Your task to perform on an android device: open app "Life360: Find Family & Friends" (install if not already installed) Image 0: 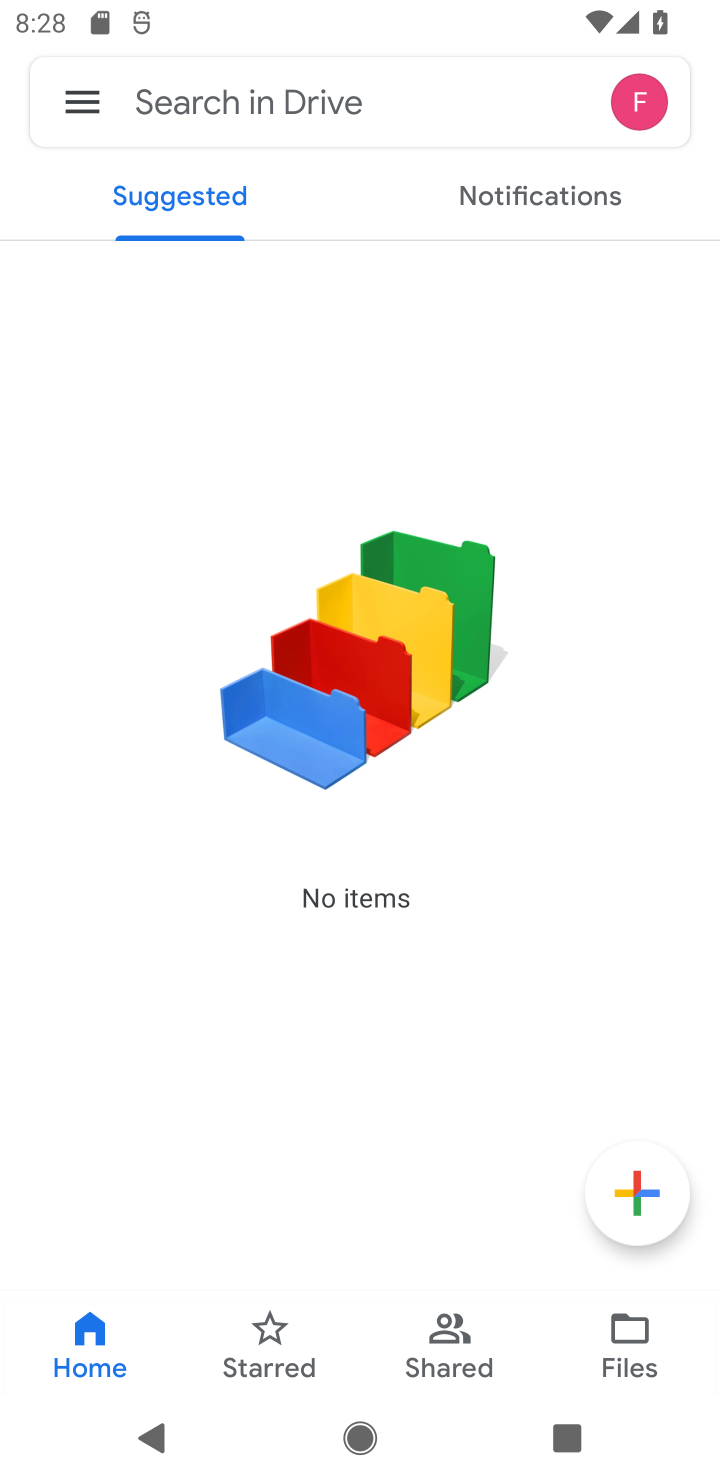
Step 0: press home button
Your task to perform on an android device: open app "Life360: Find Family & Friends" (install if not already installed) Image 1: 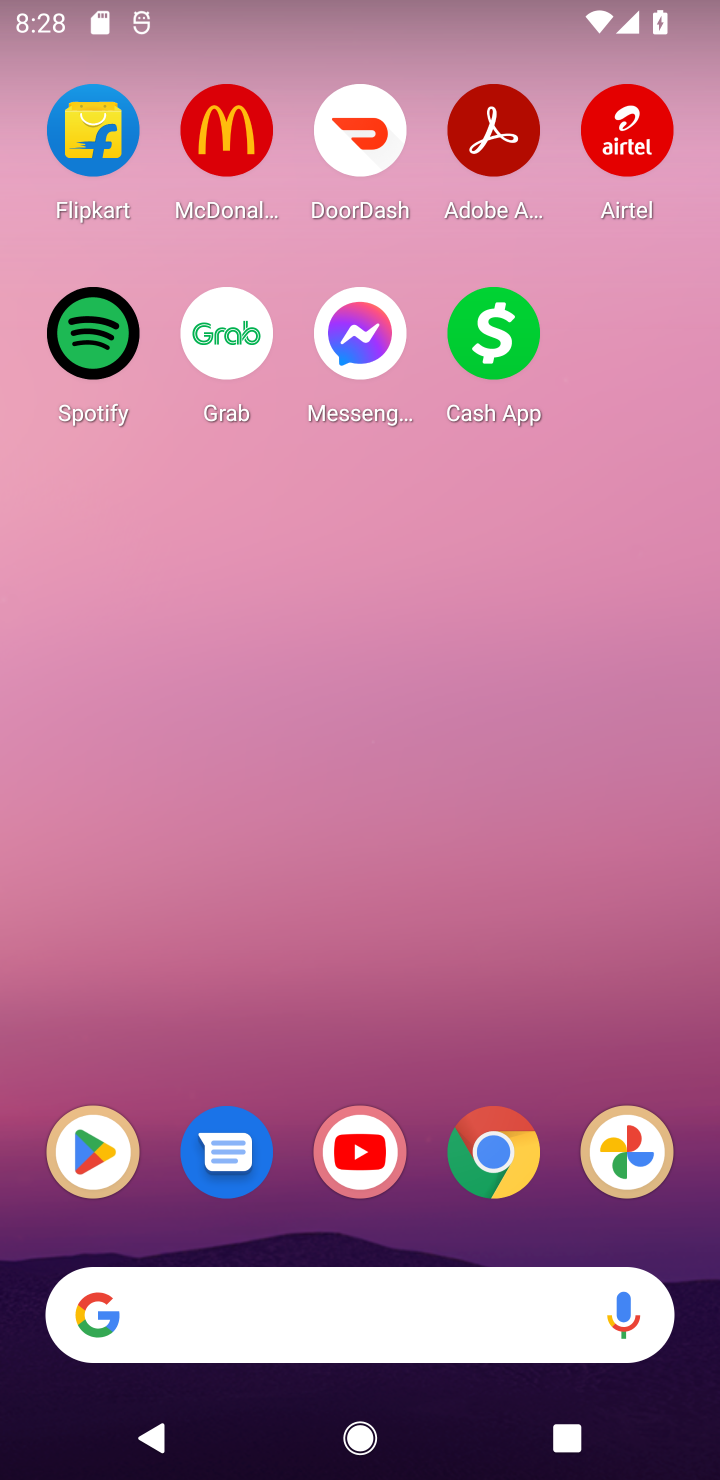
Step 1: click (112, 1138)
Your task to perform on an android device: open app "Life360: Find Family & Friends" (install if not already installed) Image 2: 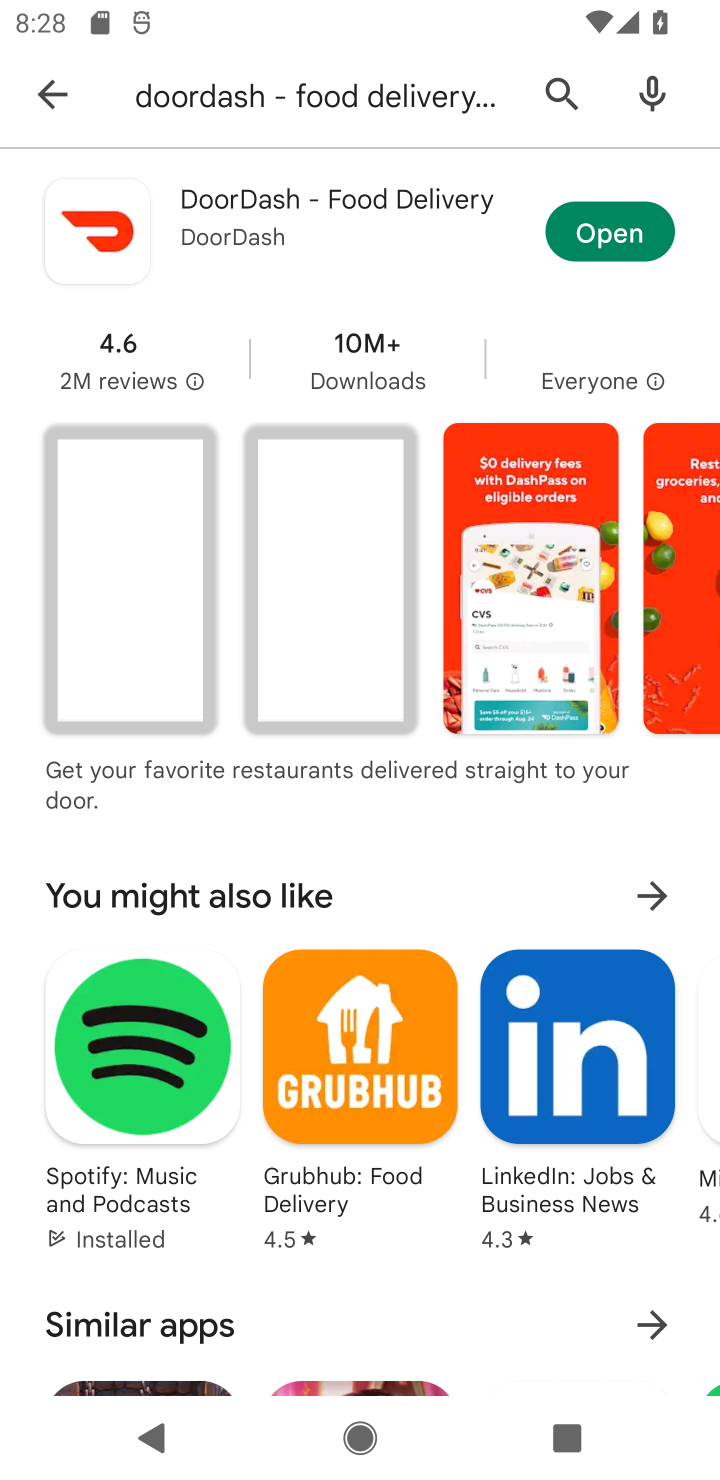
Step 2: click (57, 95)
Your task to perform on an android device: open app "Life360: Find Family & Friends" (install if not already installed) Image 3: 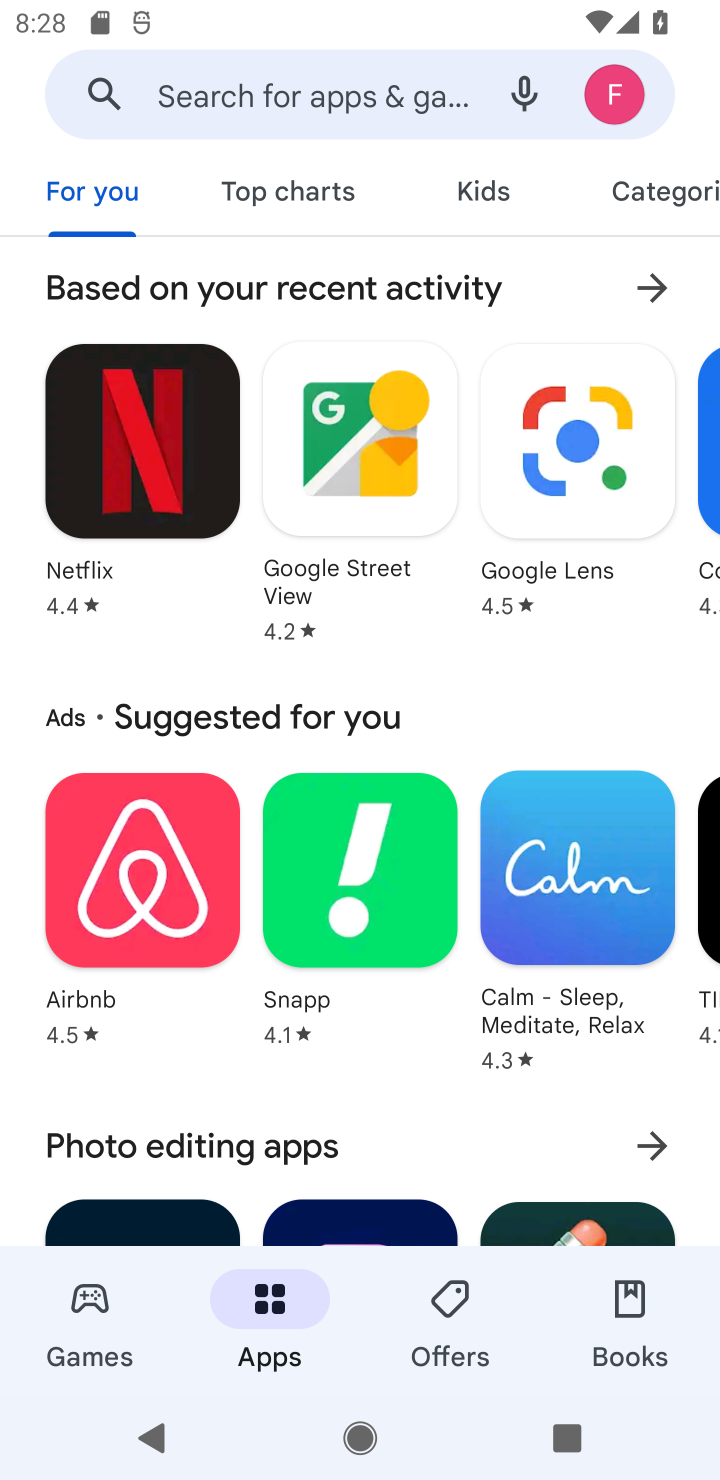
Step 3: click (296, 87)
Your task to perform on an android device: open app "Life360: Find Family & Friends" (install if not already installed) Image 4: 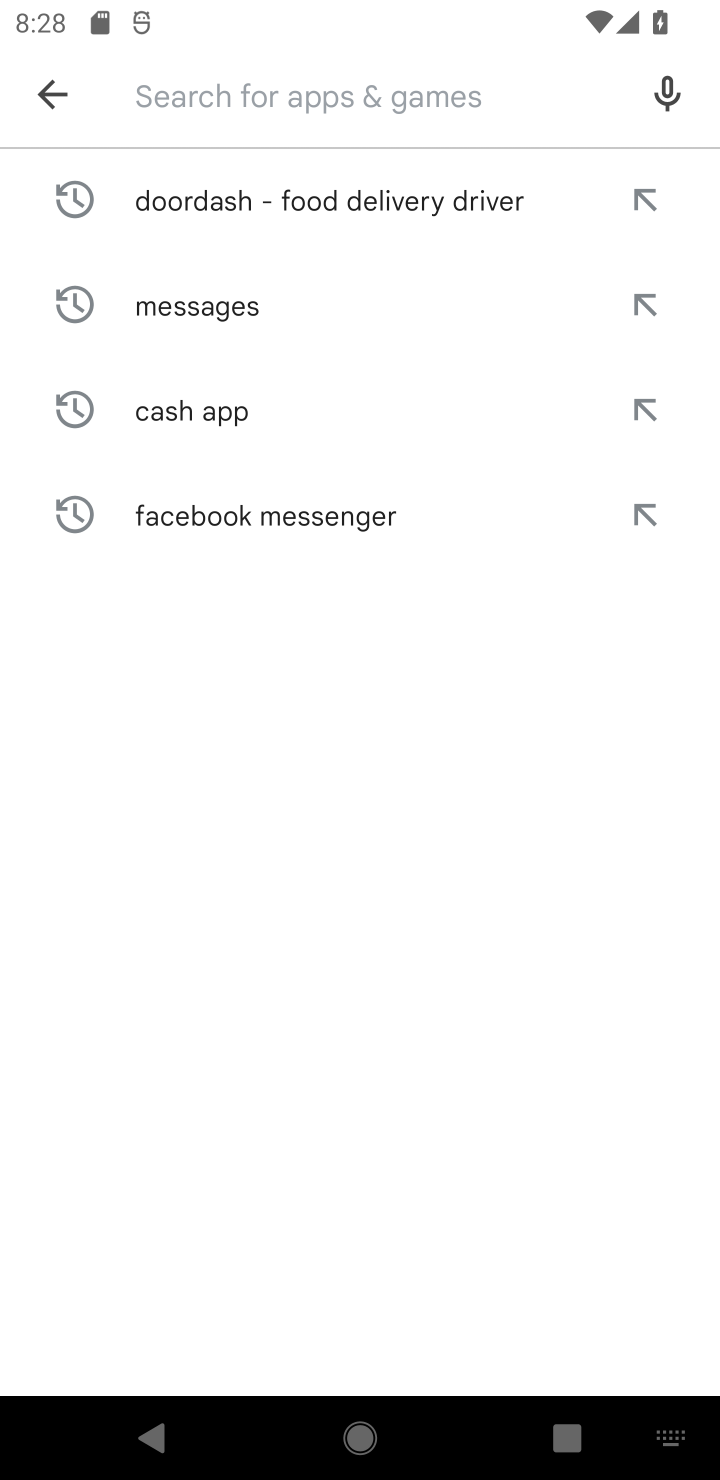
Step 4: type "Life360: Find Family & Friends"
Your task to perform on an android device: open app "Life360: Find Family & Friends" (install if not already installed) Image 5: 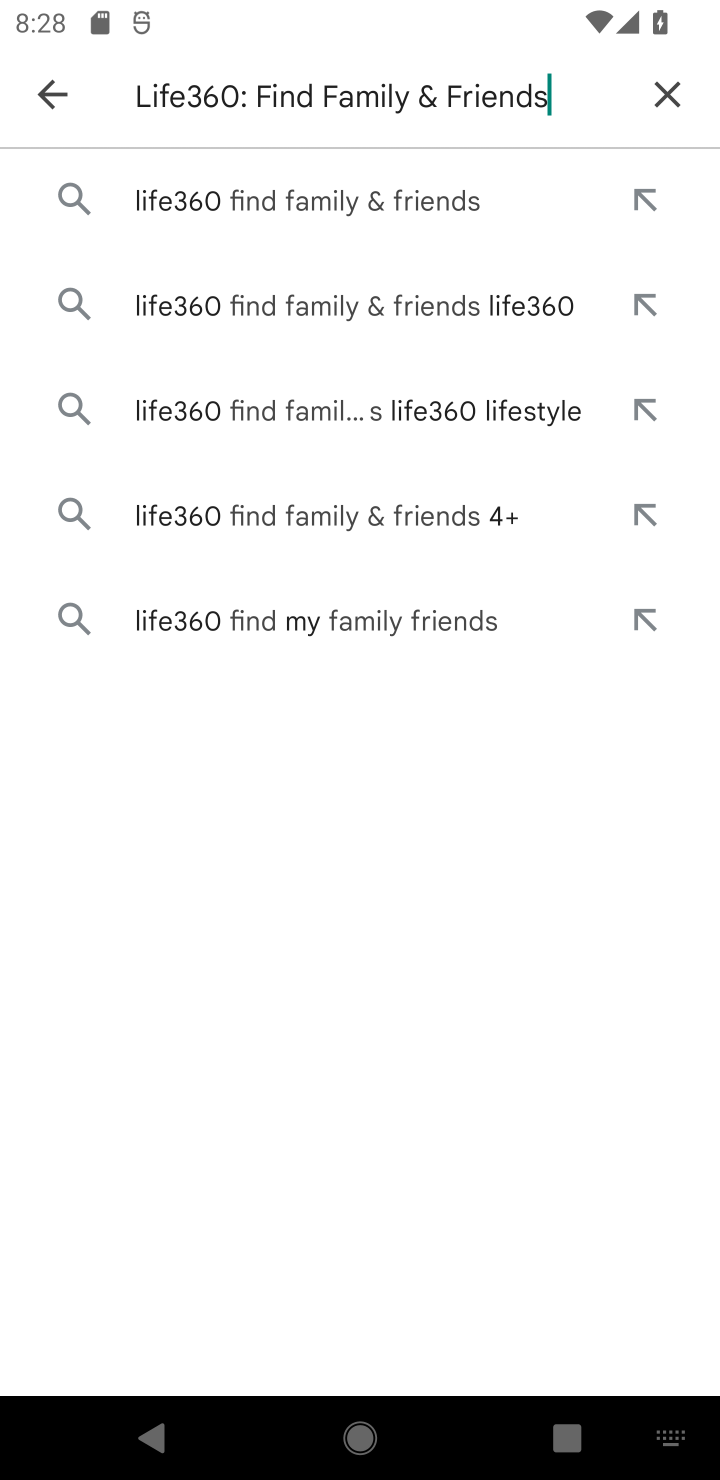
Step 5: click (462, 208)
Your task to perform on an android device: open app "Life360: Find Family & Friends" (install if not already installed) Image 6: 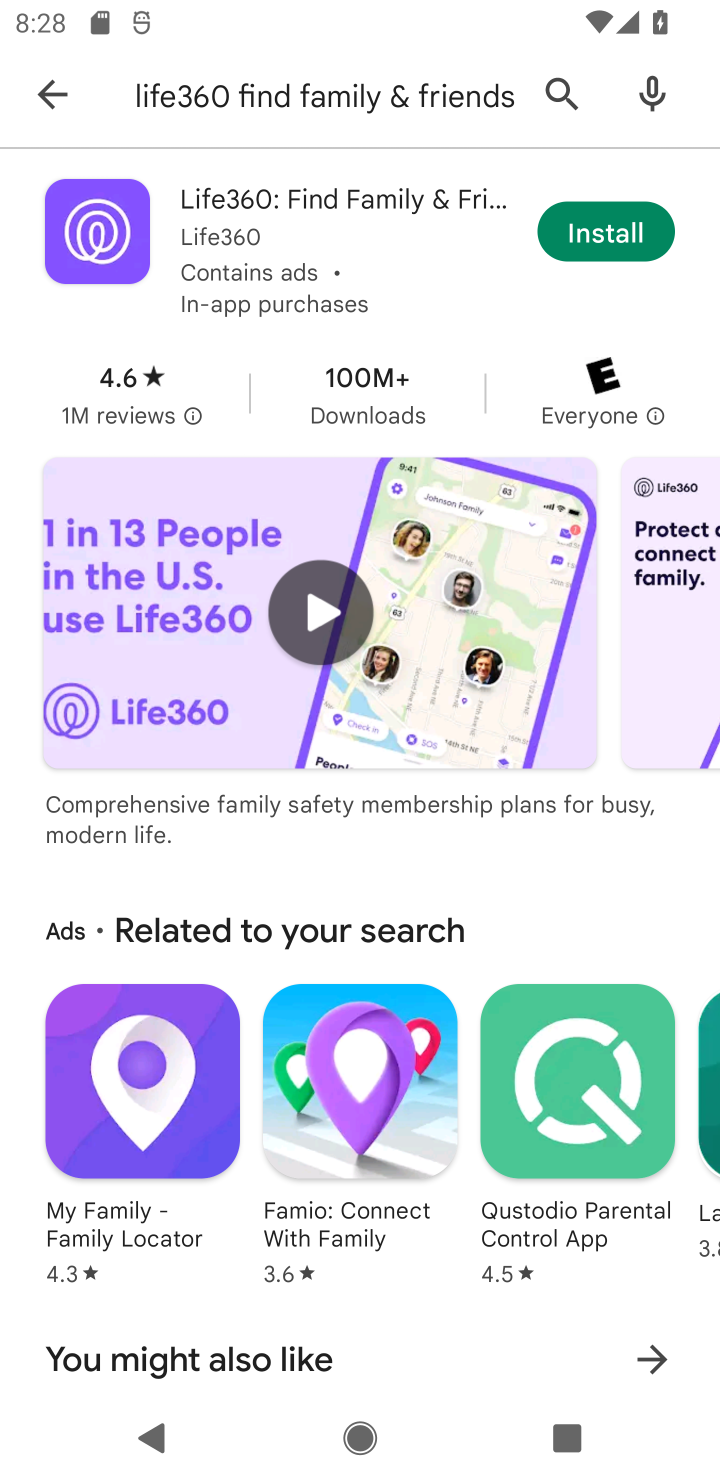
Step 6: click (591, 230)
Your task to perform on an android device: open app "Life360: Find Family & Friends" (install if not already installed) Image 7: 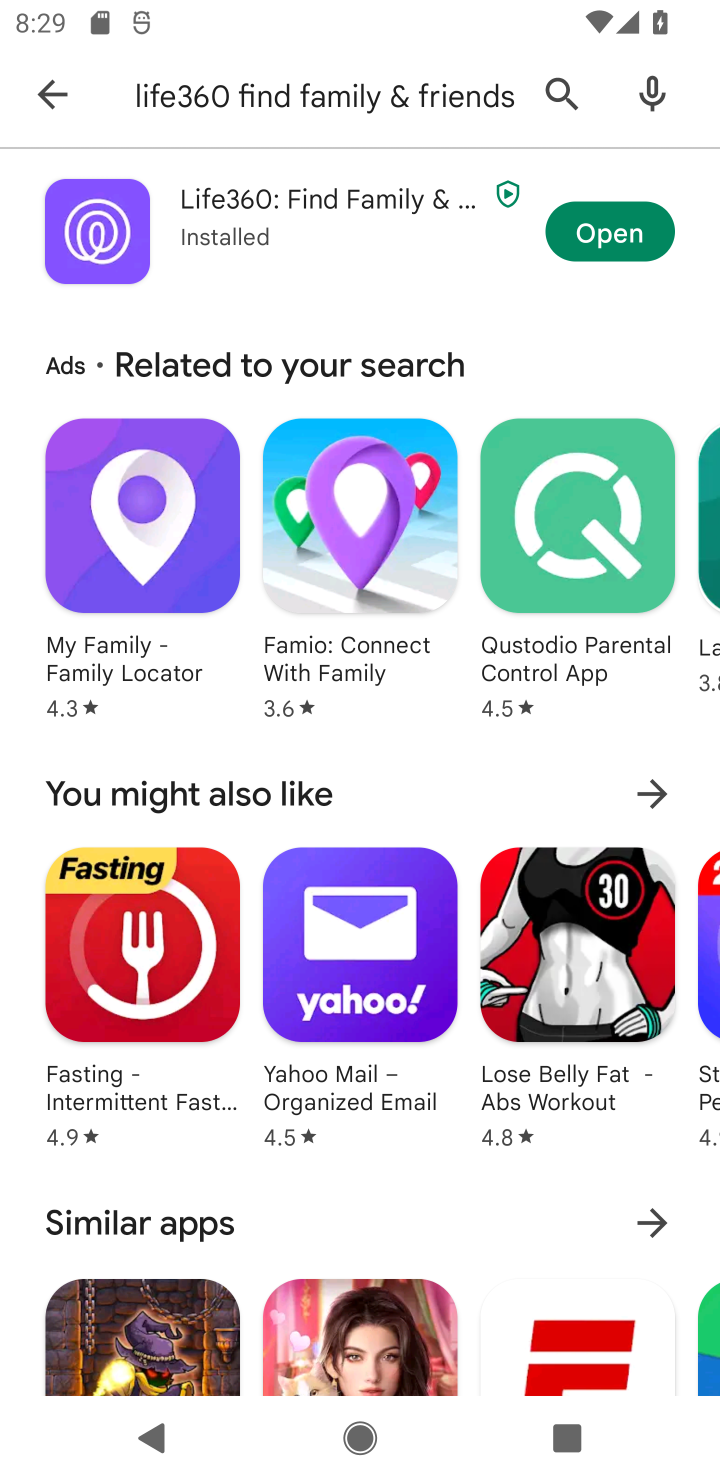
Step 7: click (615, 227)
Your task to perform on an android device: open app "Life360: Find Family & Friends" (install if not already installed) Image 8: 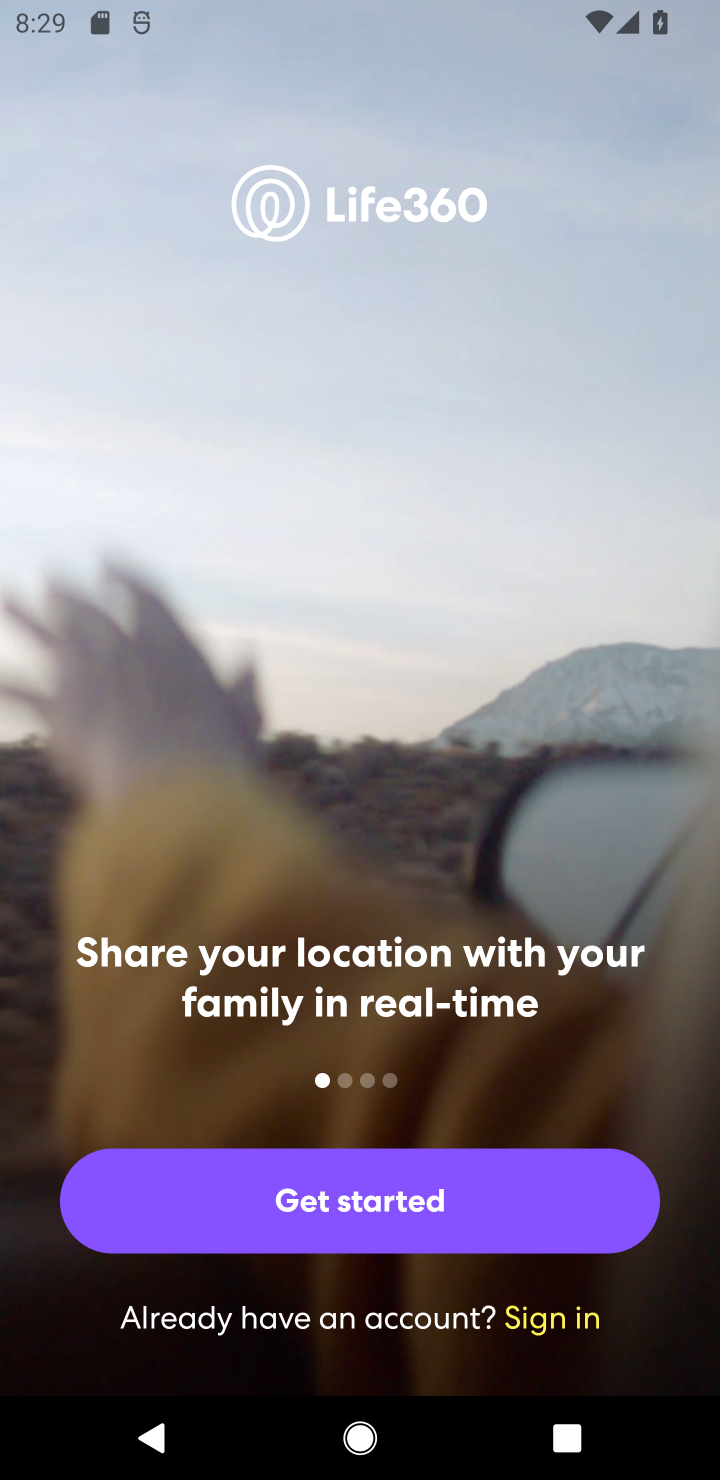
Step 8: task complete